Your task to perform on an android device: choose inbox layout in the gmail app Image 0: 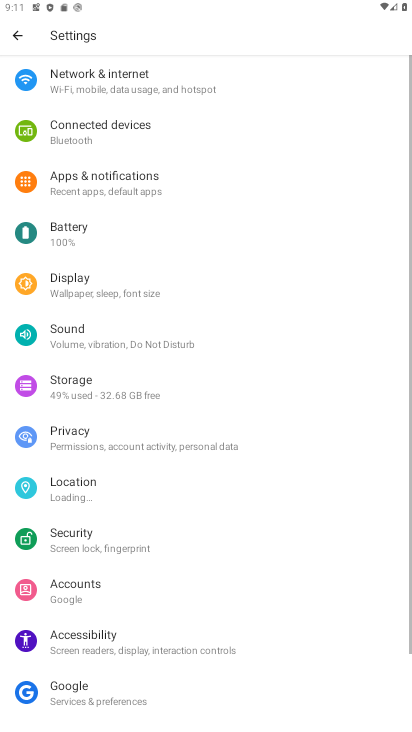
Step 0: press home button
Your task to perform on an android device: choose inbox layout in the gmail app Image 1: 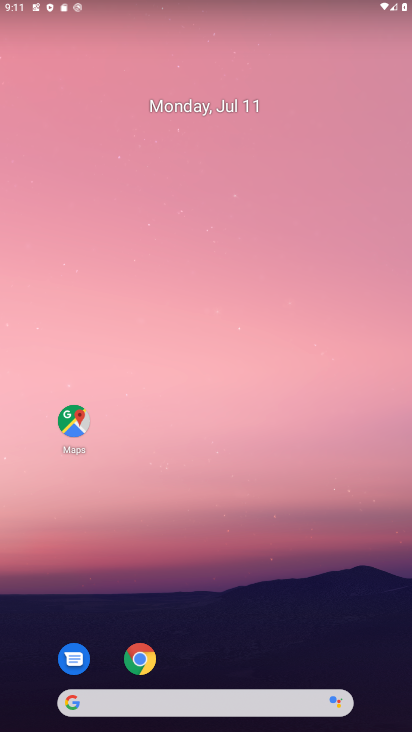
Step 1: drag from (209, 724) to (215, 87)
Your task to perform on an android device: choose inbox layout in the gmail app Image 2: 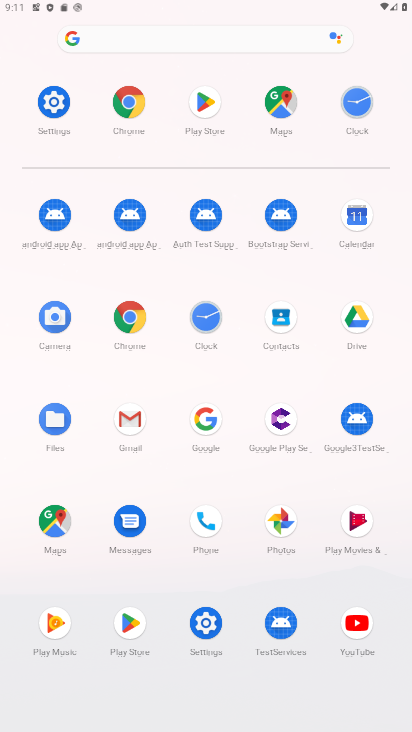
Step 2: click (131, 417)
Your task to perform on an android device: choose inbox layout in the gmail app Image 3: 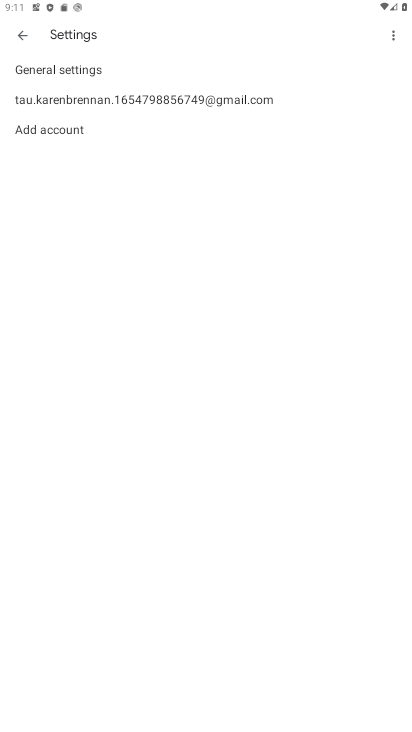
Step 3: click (99, 99)
Your task to perform on an android device: choose inbox layout in the gmail app Image 4: 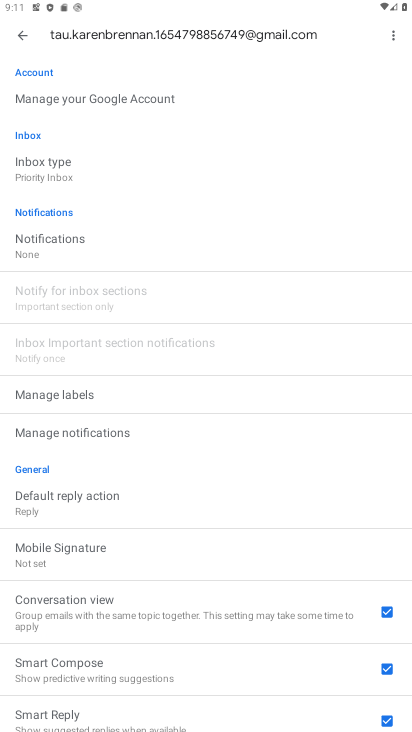
Step 4: click (42, 166)
Your task to perform on an android device: choose inbox layout in the gmail app Image 5: 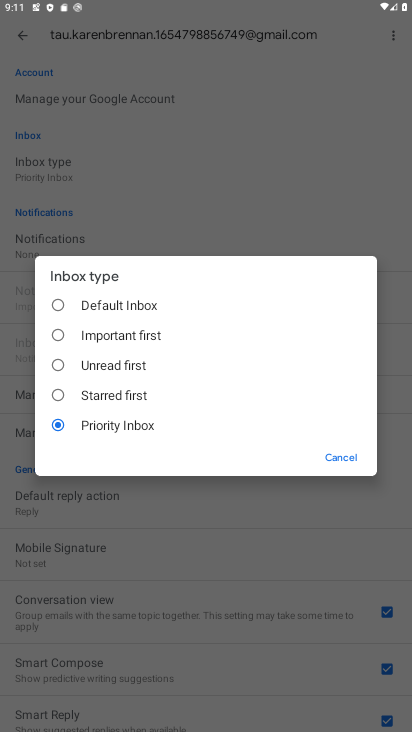
Step 5: click (60, 301)
Your task to perform on an android device: choose inbox layout in the gmail app Image 6: 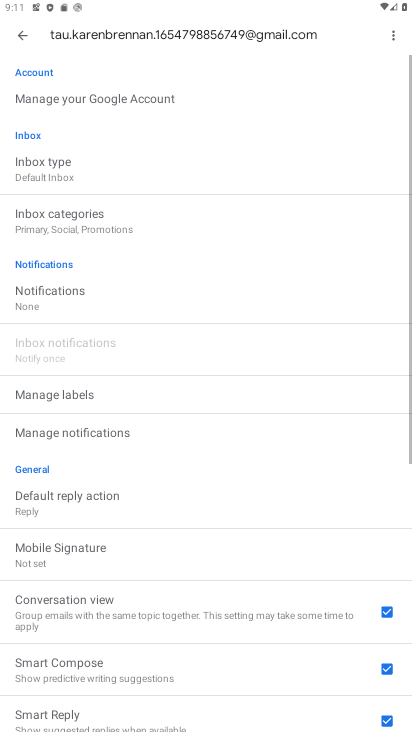
Step 6: task complete